Your task to perform on an android device: Open Yahoo.com Image 0: 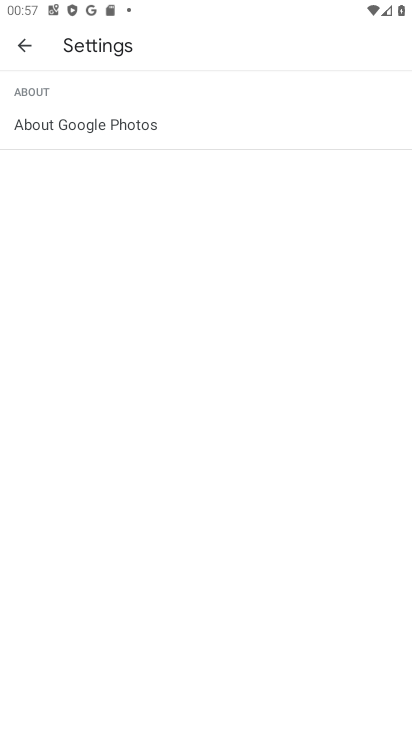
Step 0: press home button
Your task to perform on an android device: Open Yahoo.com Image 1: 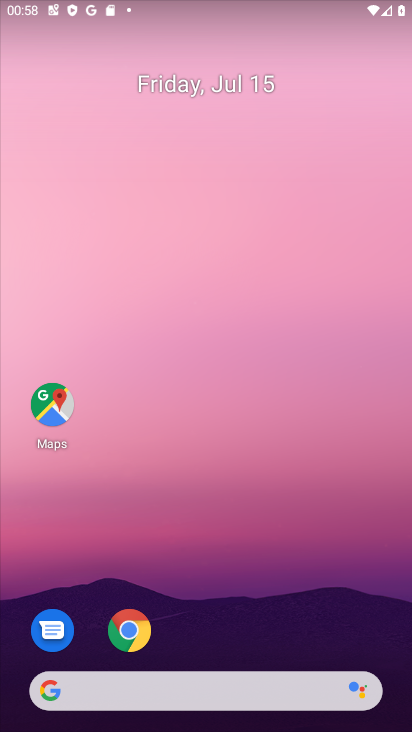
Step 1: click (145, 686)
Your task to perform on an android device: Open Yahoo.com Image 2: 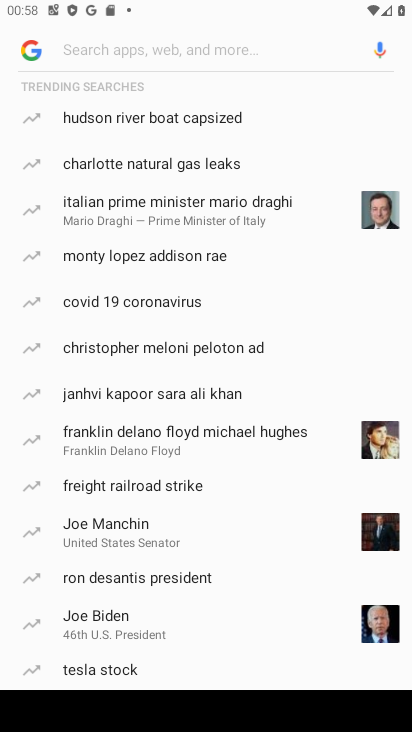
Step 2: type "yahoo.com"
Your task to perform on an android device: Open Yahoo.com Image 3: 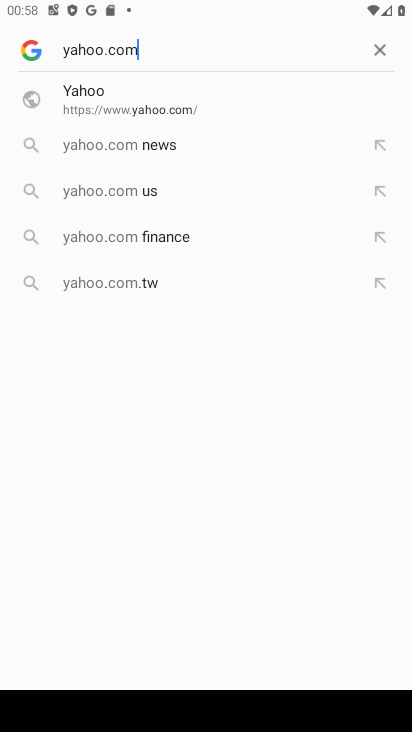
Step 3: click (221, 111)
Your task to perform on an android device: Open Yahoo.com Image 4: 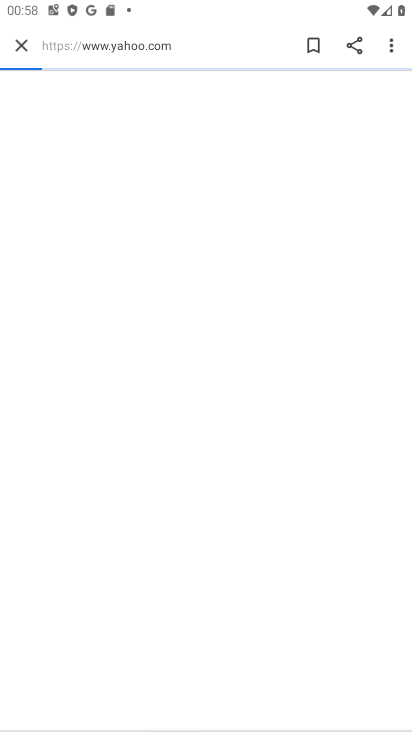
Step 4: task complete